Your task to perform on an android device: What's the weather today? Image 0: 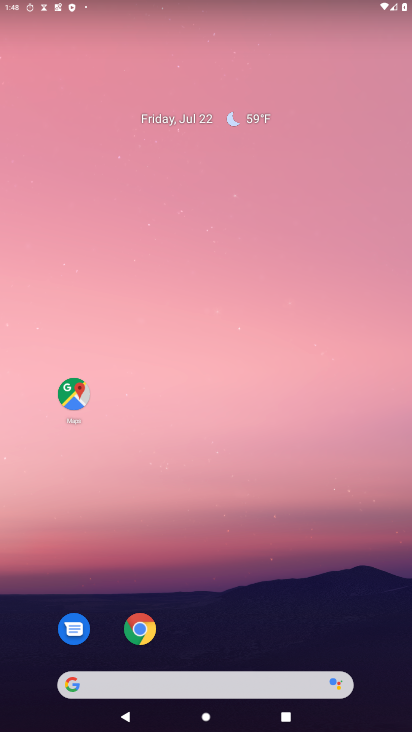
Step 0: drag from (226, 674) to (177, 77)
Your task to perform on an android device: What's the weather today? Image 1: 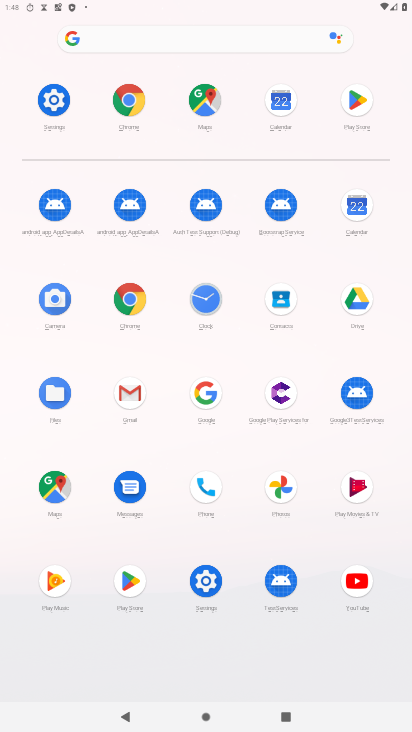
Step 1: click (127, 294)
Your task to perform on an android device: What's the weather today? Image 2: 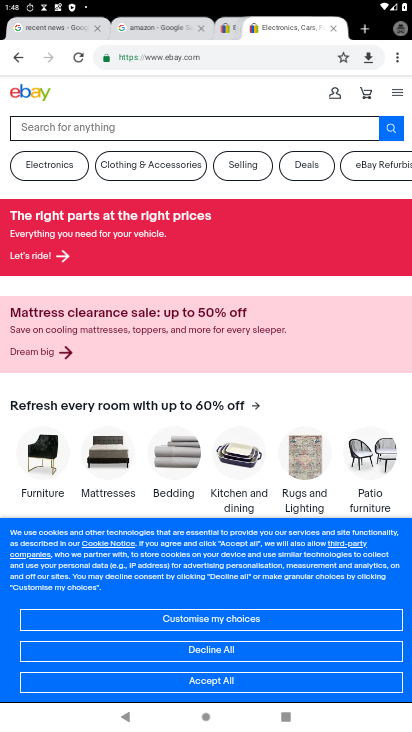
Step 2: click (228, 57)
Your task to perform on an android device: What's the weather today? Image 3: 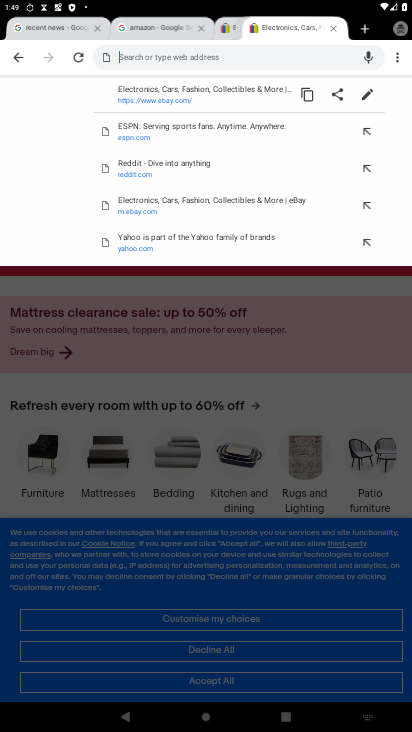
Step 3: type "weather today"
Your task to perform on an android device: What's the weather today? Image 4: 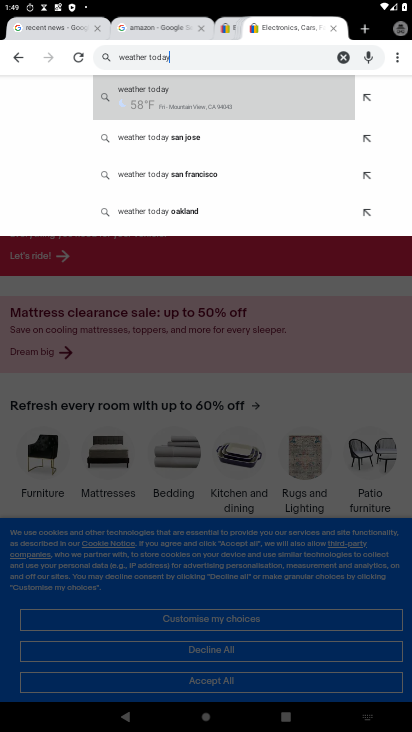
Step 4: click (243, 97)
Your task to perform on an android device: What's the weather today? Image 5: 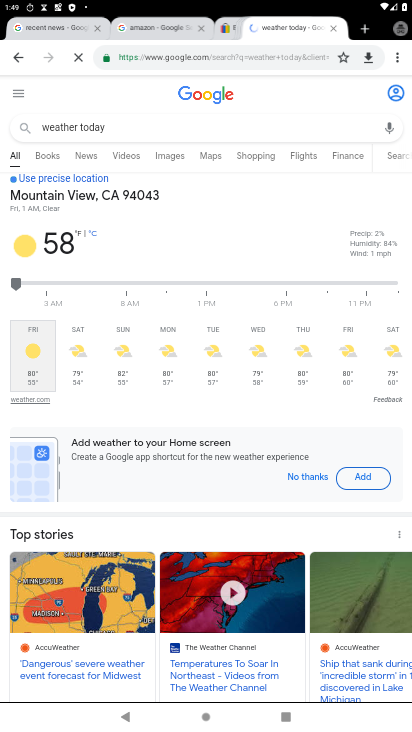
Step 5: task complete